Your task to perform on an android device: uninstall "Microsoft Outlook" Image 0: 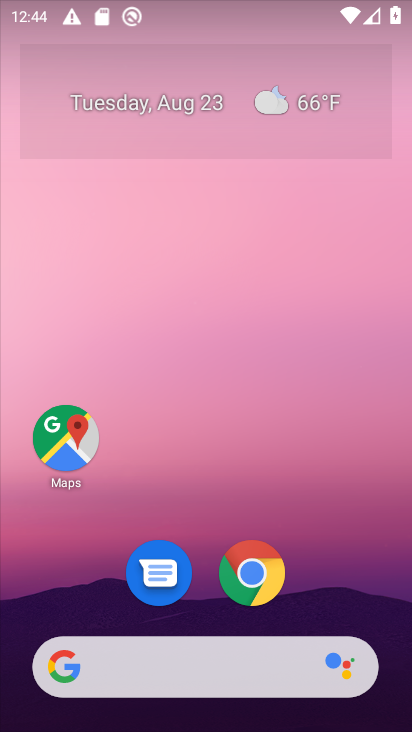
Step 0: drag from (206, 423) to (191, 136)
Your task to perform on an android device: uninstall "Microsoft Outlook" Image 1: 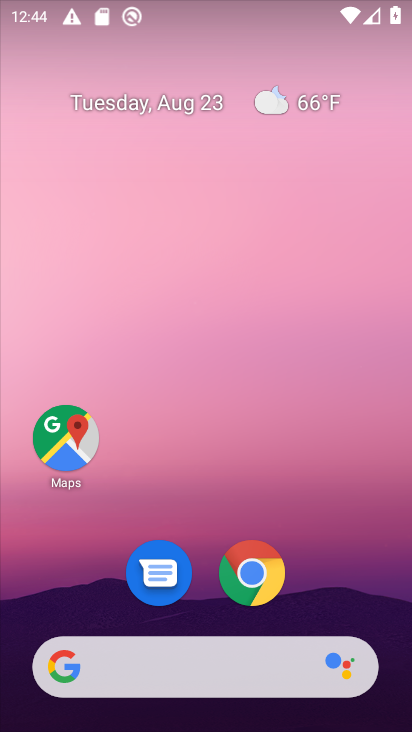
Step 1: drag from (203, 508) to (188, 2)
Your task to perform on an android device: uninstall "Microsoft Outlook" Image 2: 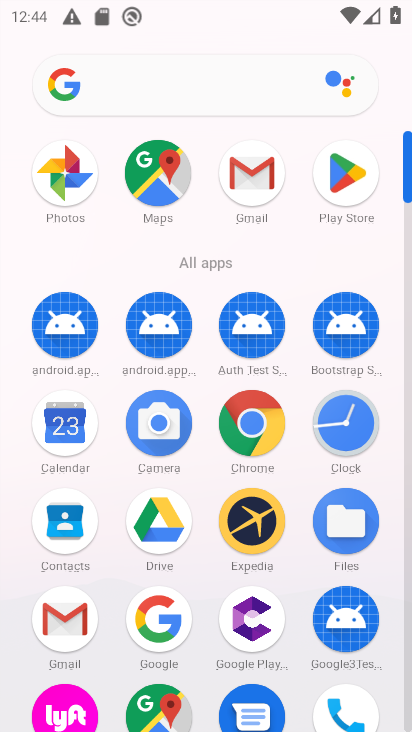
Step 2: click (328, 168)
Your task to perform on an android device: uninstall "Microsoft Outlook" Image 3: 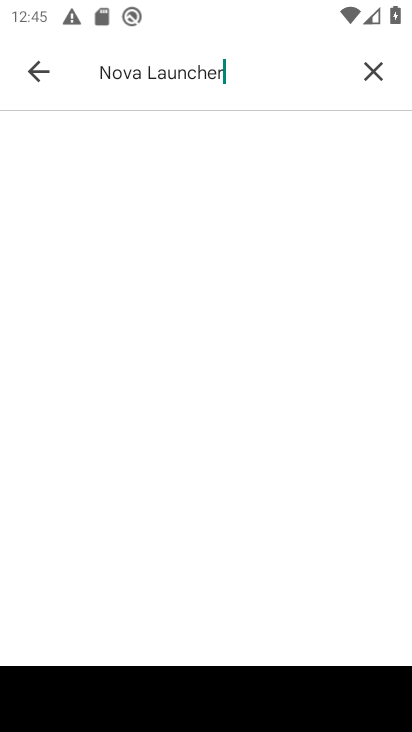
Step 3: click (374, 67)
Your task to perform on an android device: uninstall "Microsoft Outlook" Image 4: 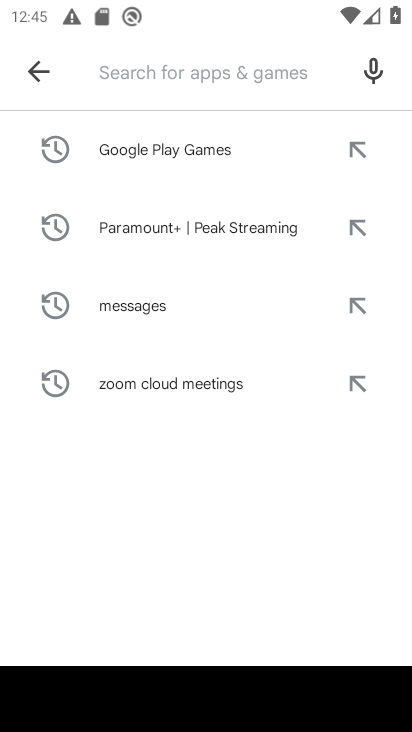
Step 4: type "Microsoft Outlook"
Your task to perform on an android device: uninstall "Microsoft Outlook" Image 5: 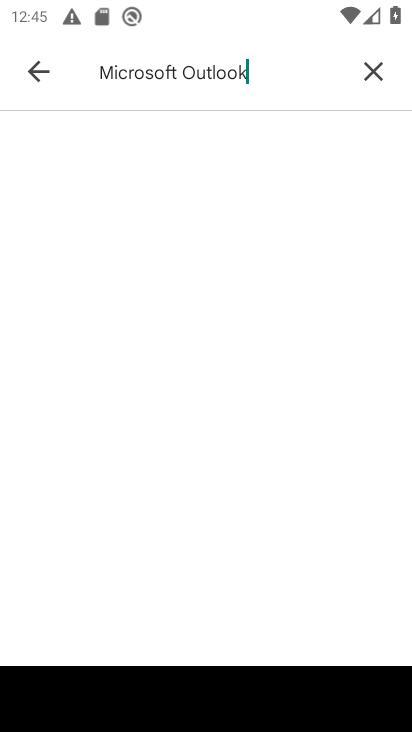
Step 5: type ""
Your task to perform on an android device: uninstall "Microsoft Outlook" Image 6: 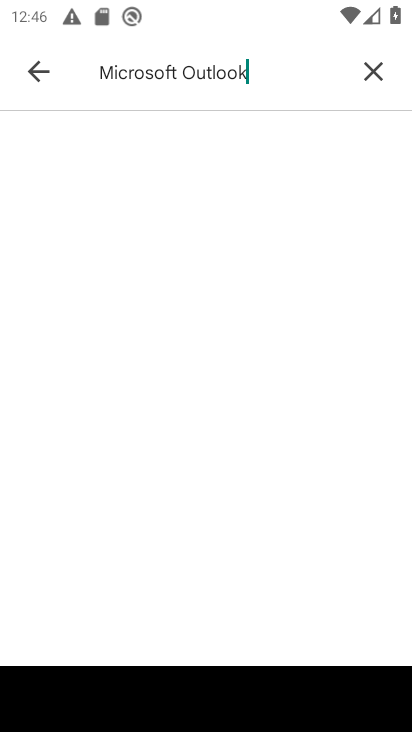
Step 6: task complete